Your task to perform on an android device: turn off airplane mode Image 0: 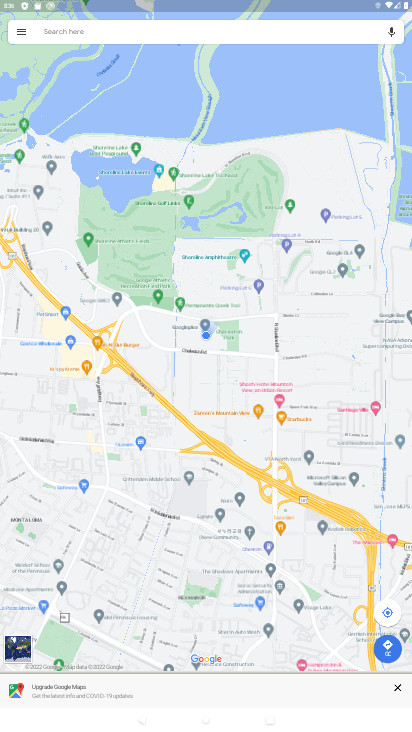
Step 0: press home button
Your task to perform on an android device: turn off airplane mode Image 1: 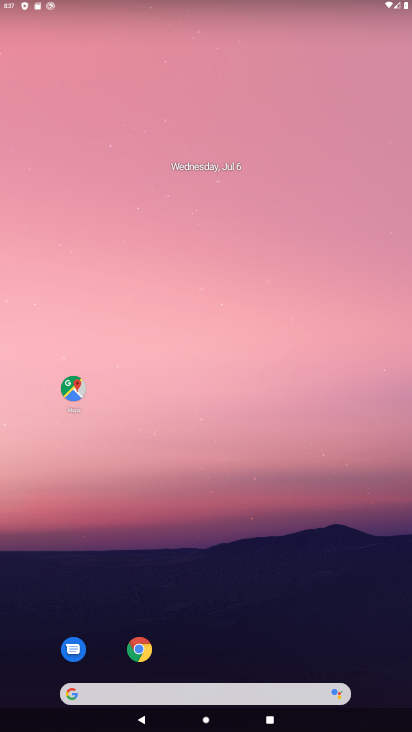
Step 1: task complete